Your task to perform on an android device: What's on my calendar today? Image 0: 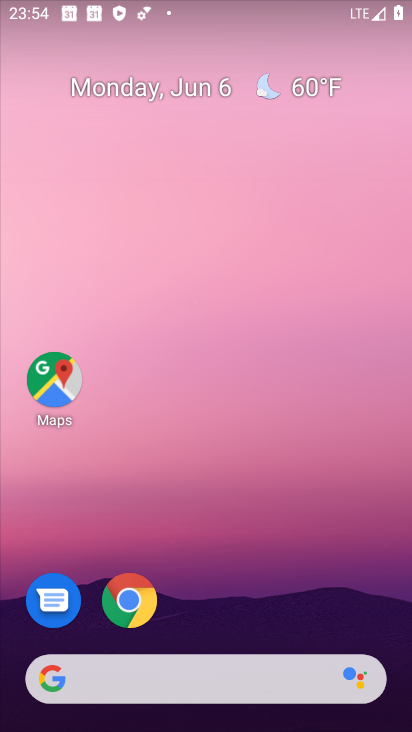
Step 0: drag from (215, 727) to (208, 47)
Your task to perform on an android device: What's on my calendar today? Image 1: 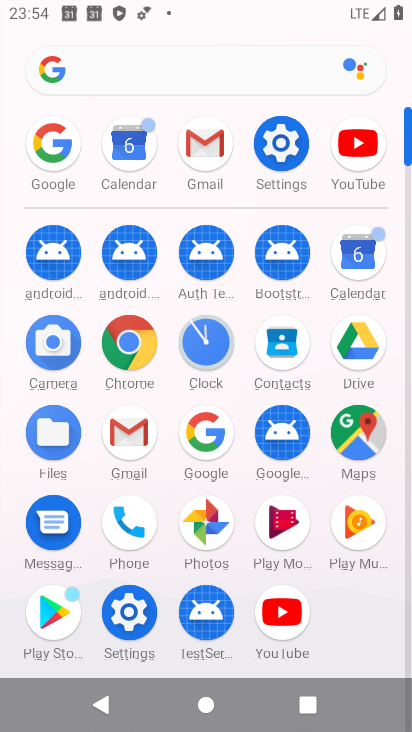
Step 1: click (359, 262)
Your task to perform on an android device: What's on my calendar today? Image 2: 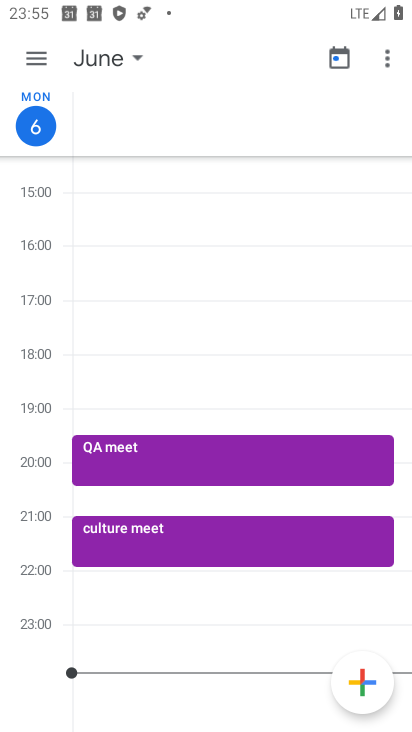
Step 2: click (34, 58)
Your task to perform on an android device: What's on my calendar today? Image 3: 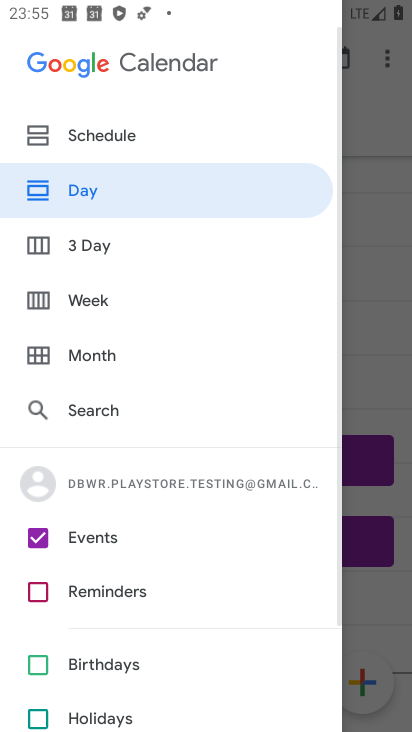
Step 3: click (45, 588)
Your task to perform on an android device: What's on my calendar today? Image 4: 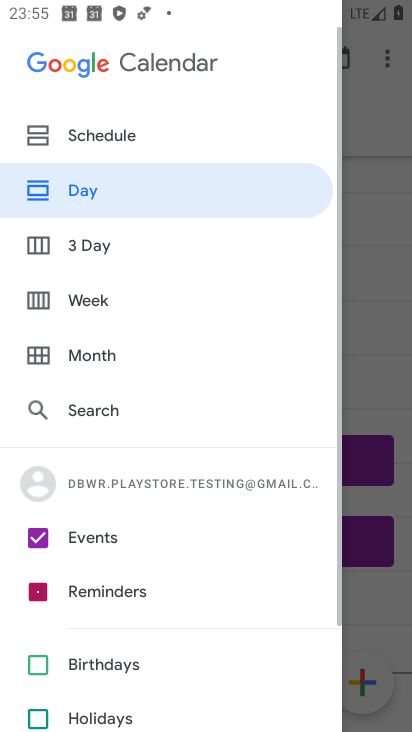
Step 4: click (36, 672)
Your task to perform on an android device: What's on my calendar today? Image 5: 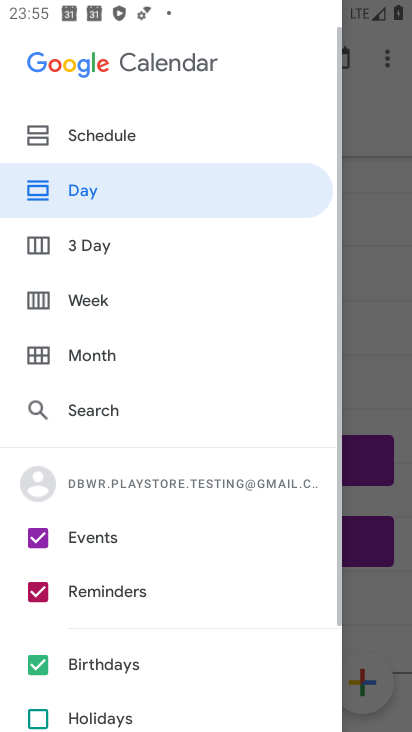
Step 5: click (37, 712)
Your task to perform on an android device: What's on my calendar today? Image 6: 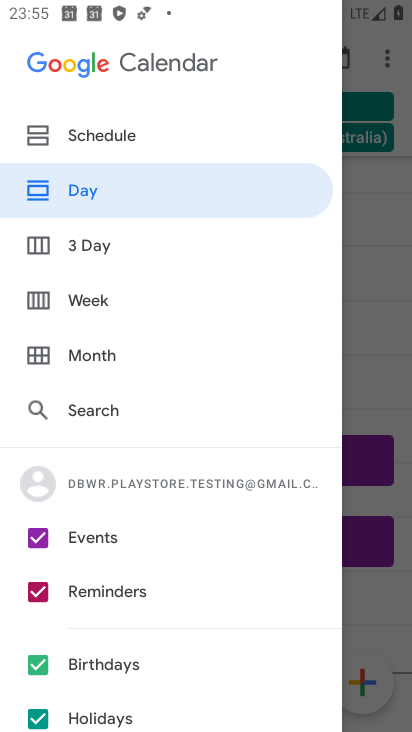
Step 6: click (367, 202)
Your task to perform on an android device: What's on my calendar today? Image 7: 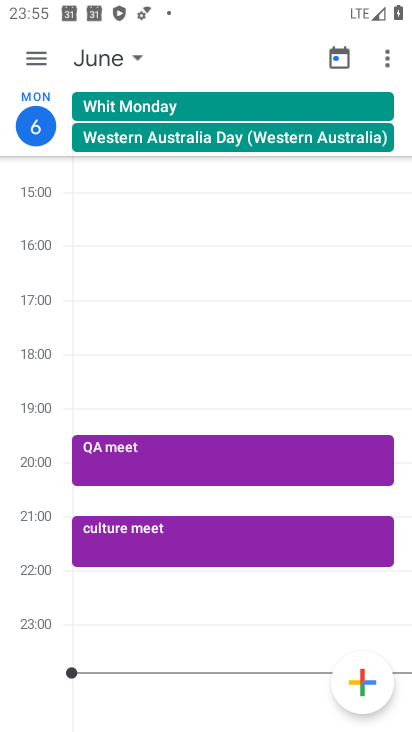
Step 7: click (137, 55)
Your task to perform on an android device: What's on my calendar today? Image 8: 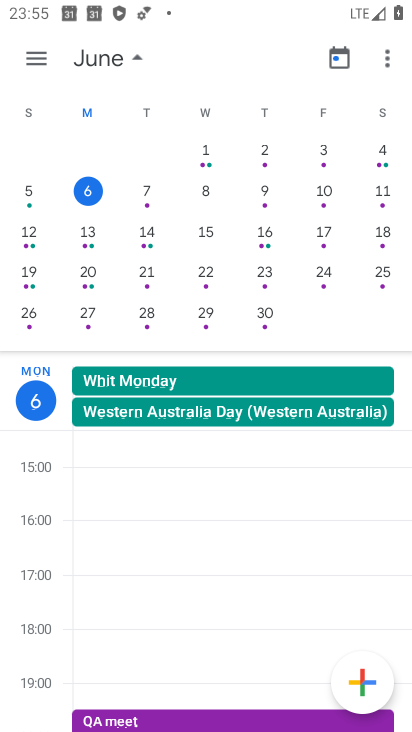
Step 8: click (132, 51)
Your task to perform on an android device: What's on my calendar today? Image 9: 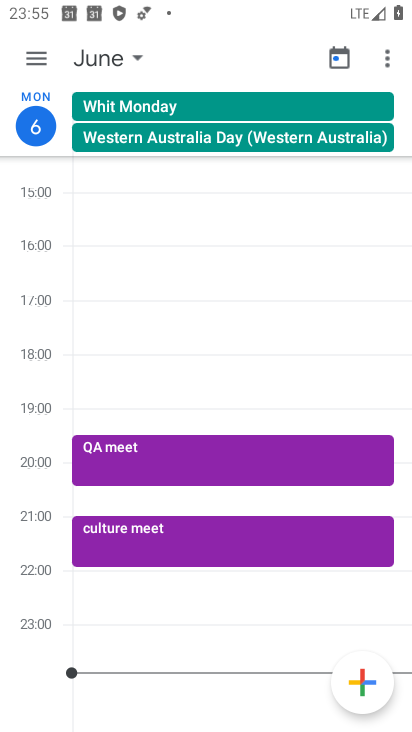
Step 9: task complete